Your task to perform on an android device: find which apps use the phone's location Image 0: 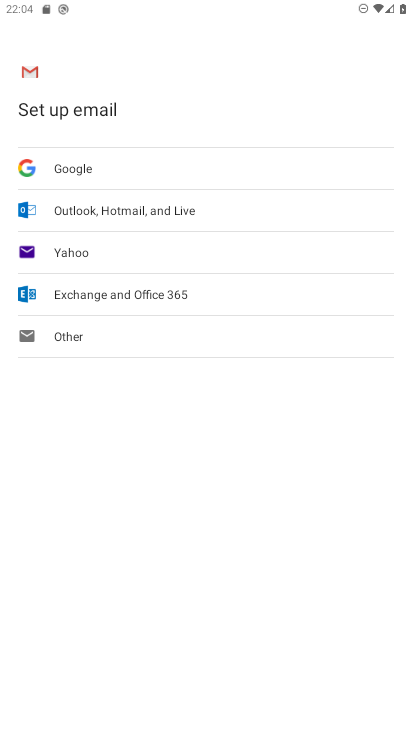
Step 0: press home button
Your task to perform on an android device: find which apps use the phone's location Image 1: 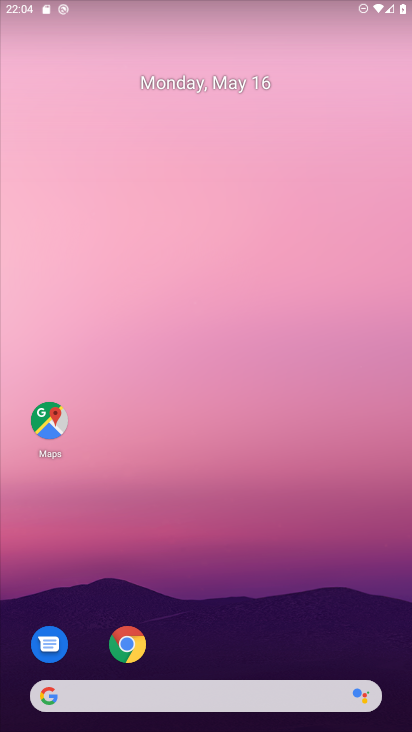
Step 1: drag from (48, 481) to (262, 107)
Your task to perform on an android device: find which apps use the phone's location Image 2: 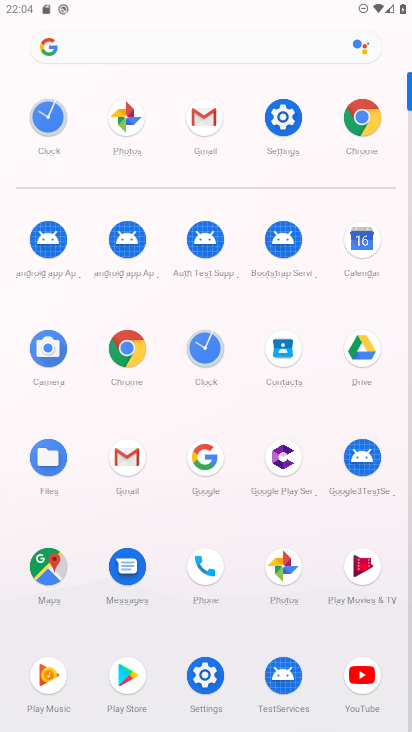
Step 2: click (282, 121)
Your task to perform on an android device: find which apps use the phone's location Image 3: 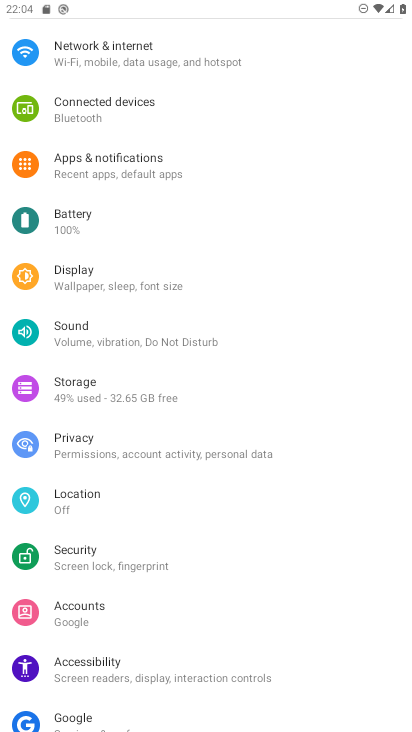
Step 3: click (73, 512)
Your task to perform on an android device: find which apps use the phone's location Image 4: 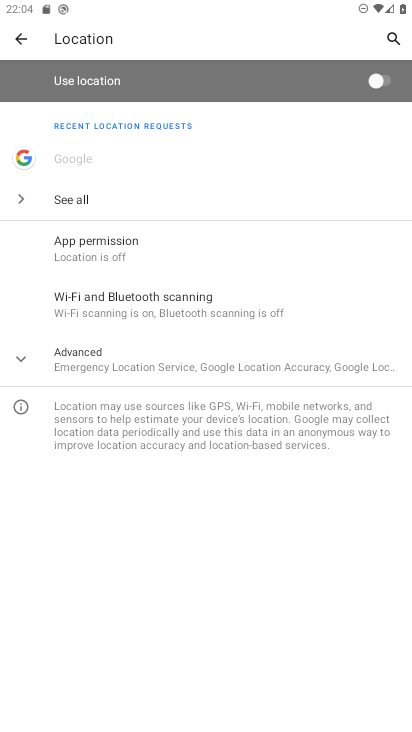
Step 4: click (378, 77)
Your task to perform on an android device: find which apps use the phone's location Image 5: 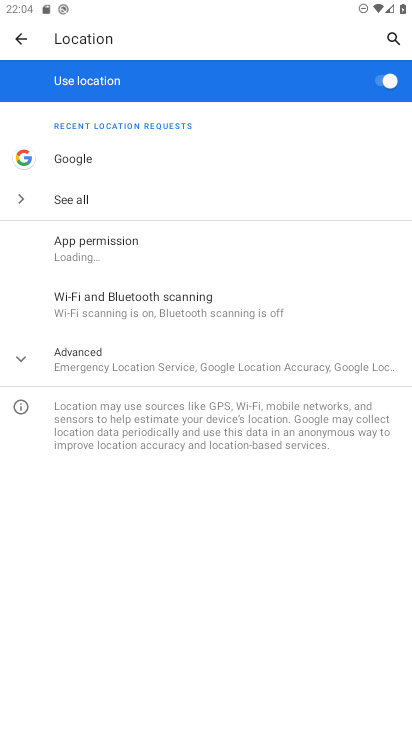
Step 5: click (114, 250)
Your task to perform on an android device: find which apps use the phone's location Image 6: 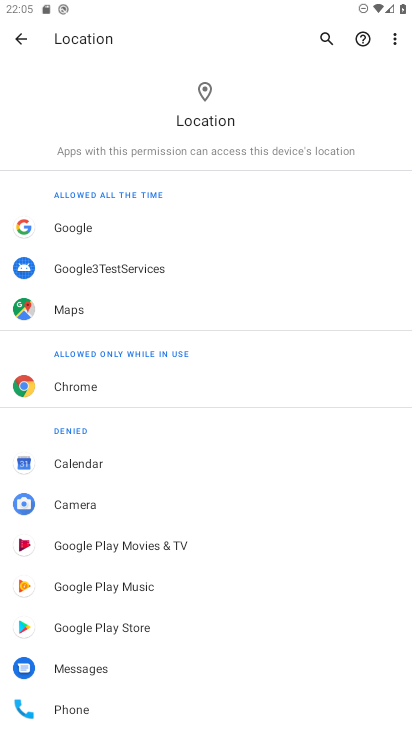
Step 6: task complete